Your task to perform on an android device: snooze an email in the gmail app Image 0: 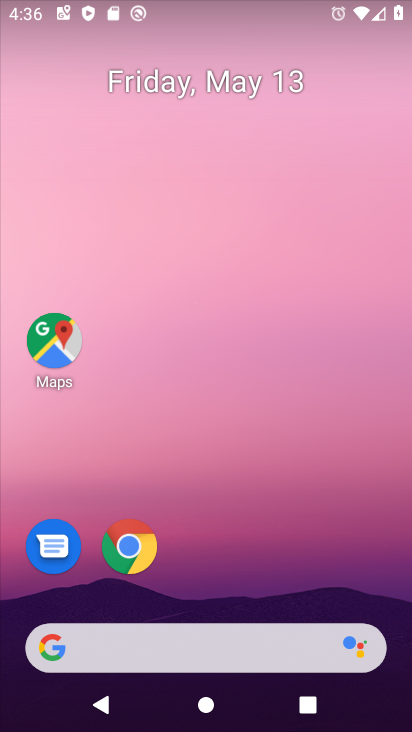
Step 0: drag from (215, 572) to (270, 1)
Your task to perform on an android device: snooze an email in the gmail app Image 1: 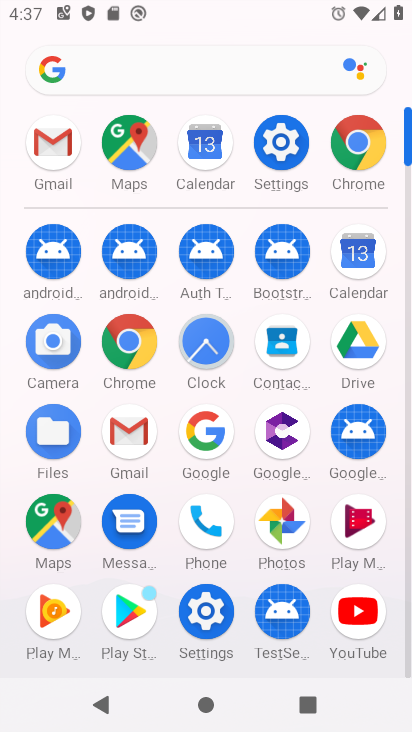
Step 1: click (129, 428)
Your task to perform on an android device: snooze an email in the gmail app Image 2: 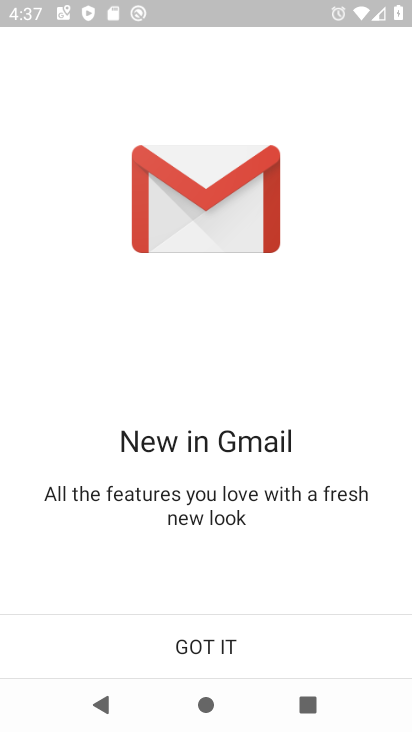
Step 2: click (226, 650)
Your task to perform on an android device: snooze an email in the gmail app Image 3: 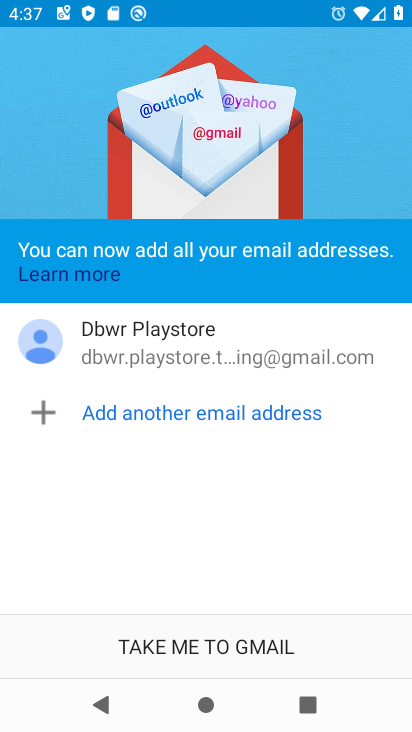
Step 3: click (238, 647)
Your task to perform on an android device: snooze an email in the gmail app Image 4: 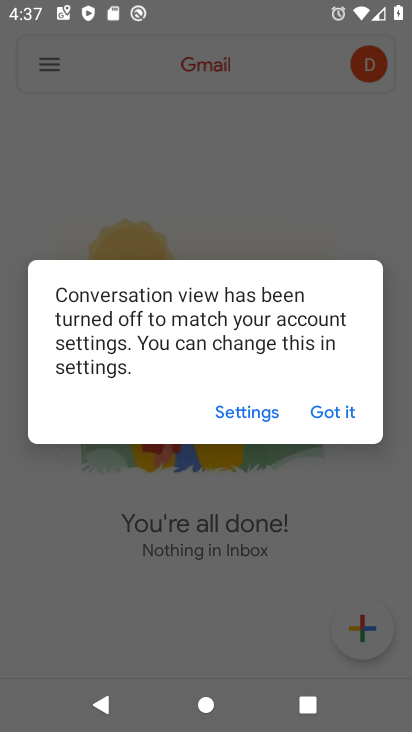
Step 4: click (342, 407)
Your task to perform on an android device: snooze an email in the gmail app Image 5: 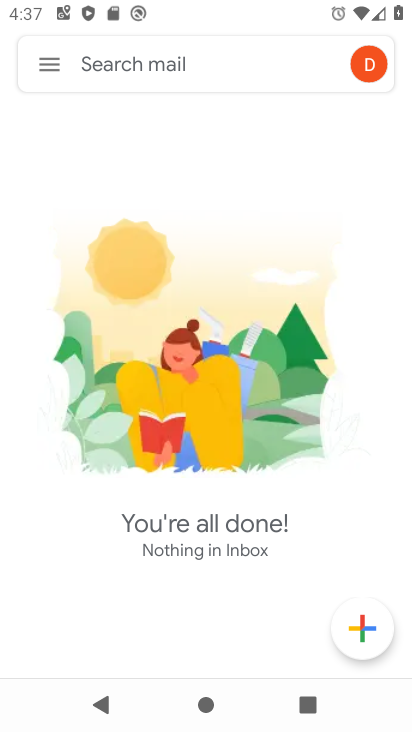
Step 5: click (40, 67)
Your task to perform on an android device: snooze an email in the gmail app Image 6: 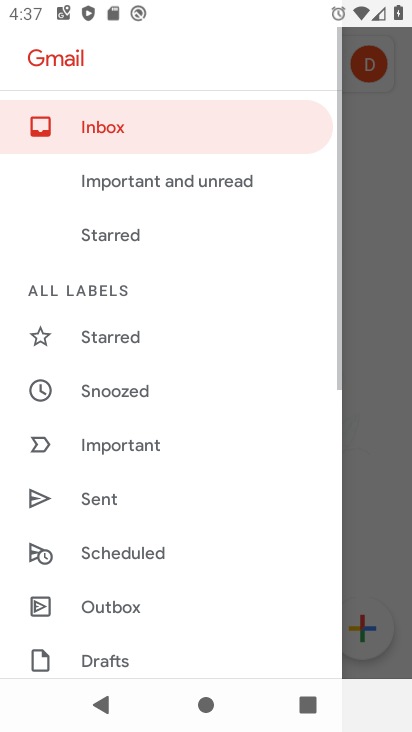
Step 6: drag from (128, 579) to (186, 229)
Your task to perform on an android device: snooze an email in the gmail app Image 7: 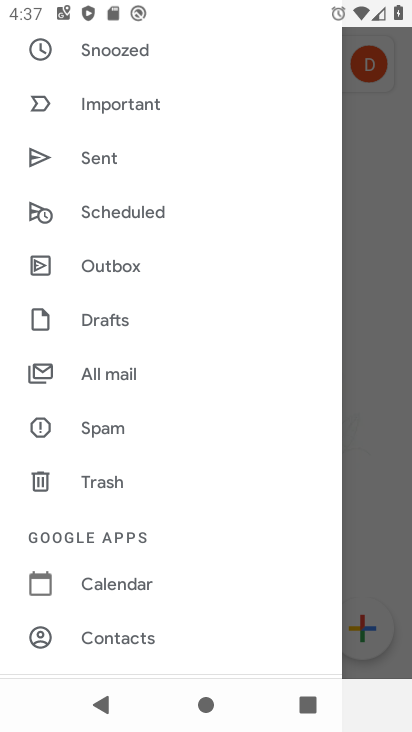
Step 7: click (125, 379)
Your task to perform on an android device: snooze an email in the gmail app Image 8: 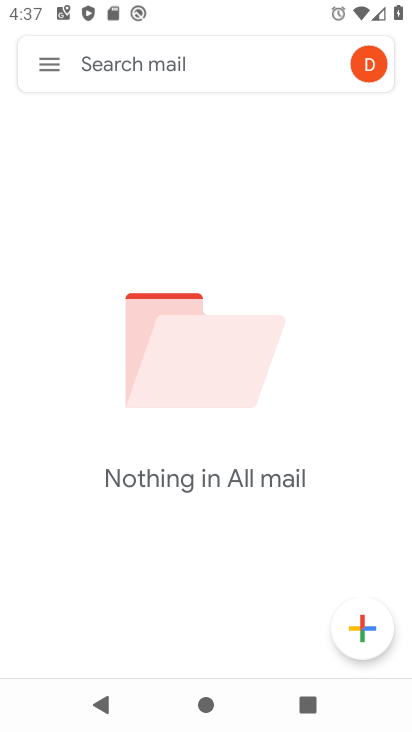
Step 8: task complete